Your task to perform on an android device: Is it going to rain tomorrow? Image 0: 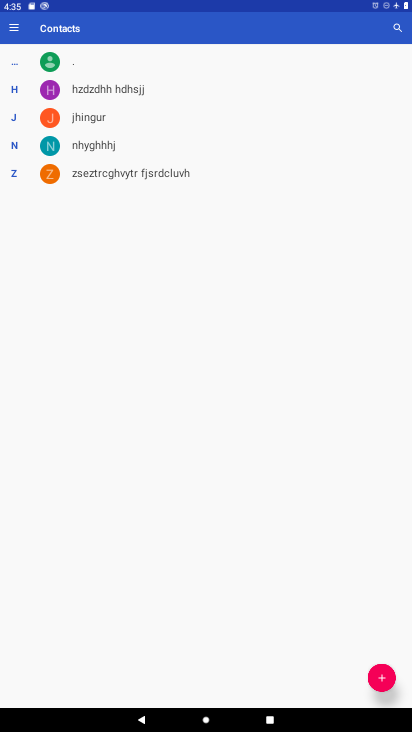
Step 0: press home button
Your task to perform on an android device: Is it going to rain tomorrow? Image 1: 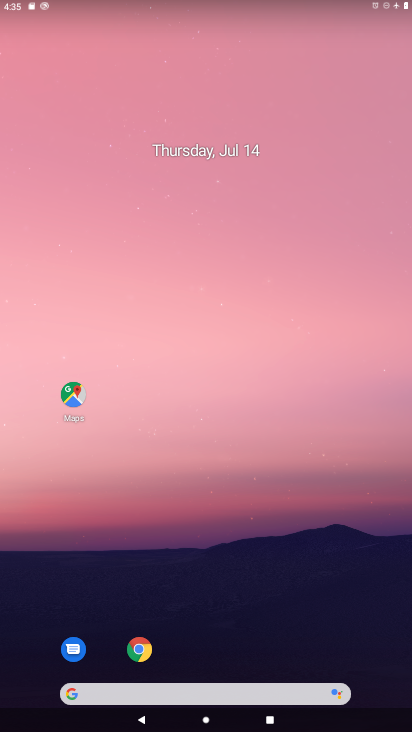
Step 1: click (177, 694)
Your task to perform on an android device: Is it going to rain tomorrow? Image 2: 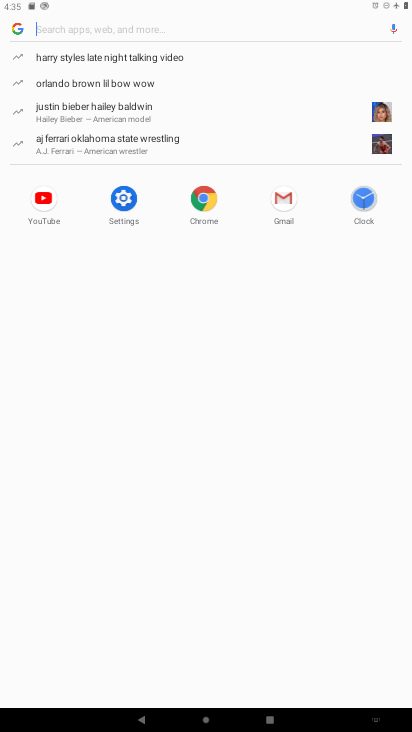
Step 2: type "weather tomorrow"
Your task to perform on an android device: Is it going to rain tomorrow? Image 3: 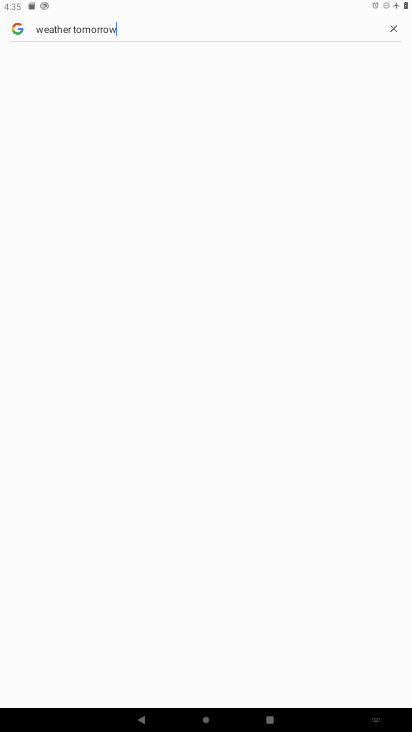
Step 3: click (182, 94)
Your task to perform on an android device: Is it going to rain tomorrow? Image 4: 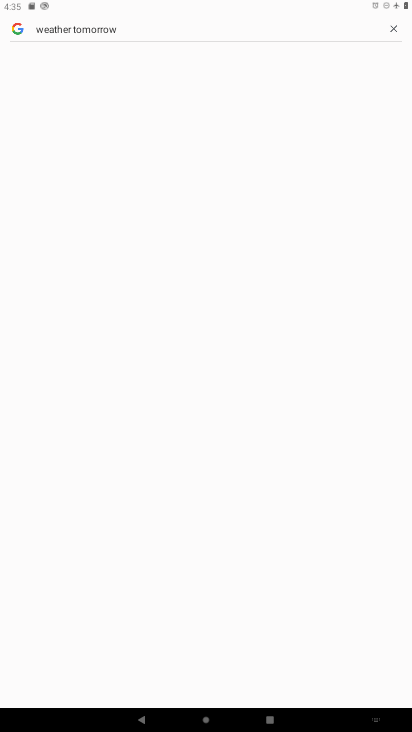
Step 4: task complete